Your task to perform on an android device: Set the phone to "Do not disturb". Image 0: 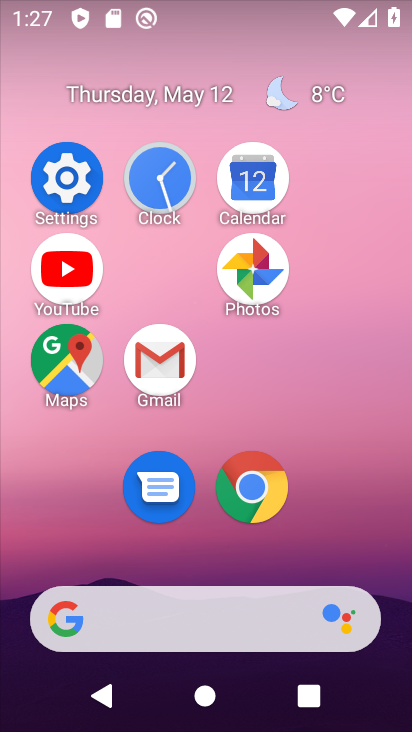
Step 0: click (69, 164)
Your task to perform on an android device: Set the phone to "Do not disturb". Image 1: 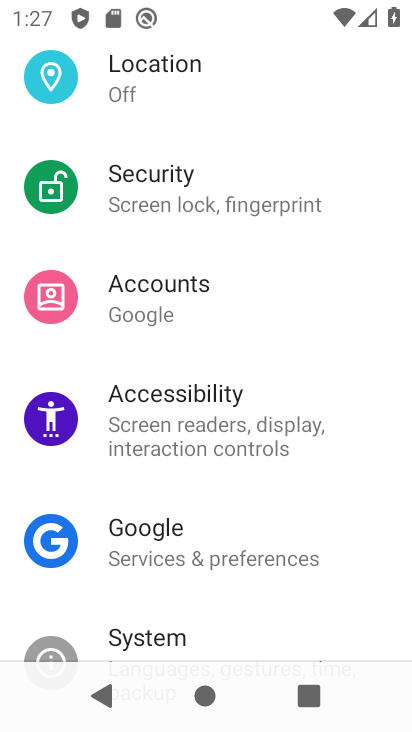
Step 1: drag from (238, 109) to (231, 549)
Your task to perform on an android device: Set the phone to "Do not disturb". Image 2: 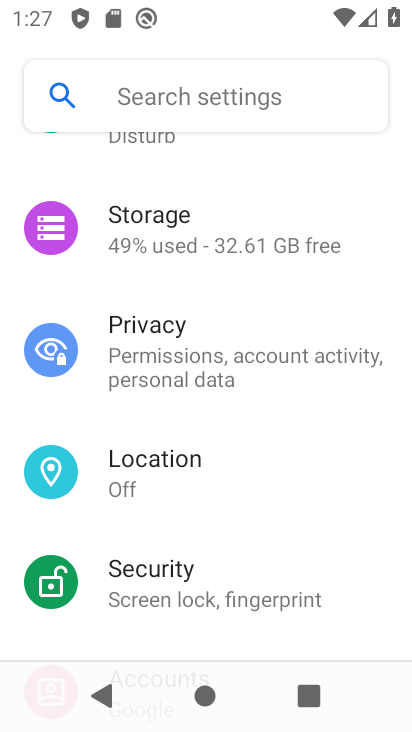
Step 2: drag from (280, 184) to (262, 432)
Your task to perform on an android device: Set the phone to "Do not disturb". Image 3: 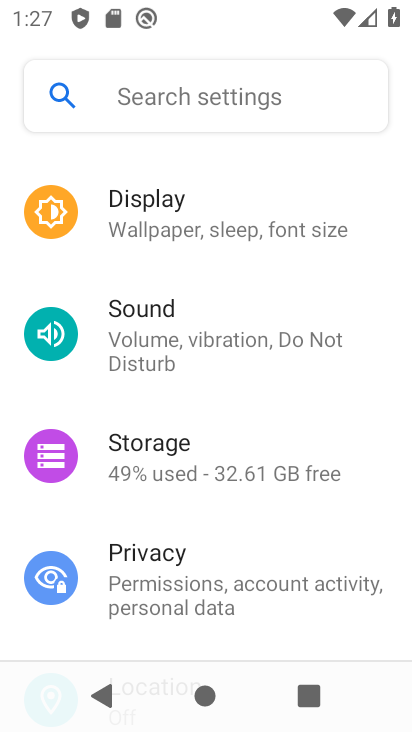
Step 3: click (225, 348)
Your task to perform on an android device: Set the phone to "Do not disturb". Image 4: 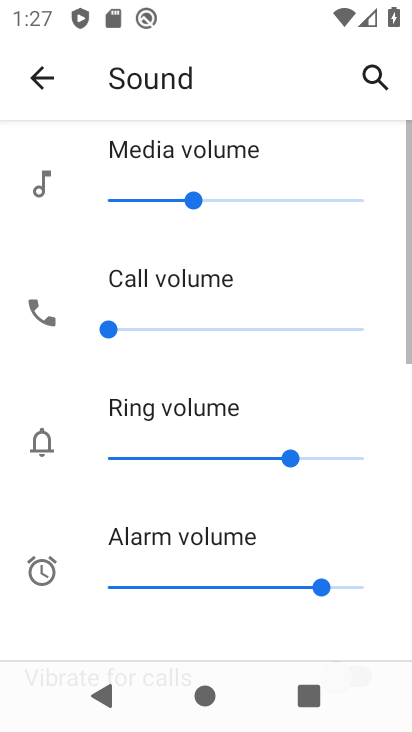
Step 4: drag from (221, 597) to (186, 165)
Your task to perform on an android device: Set the phone to "Do not disturb". Image 5: 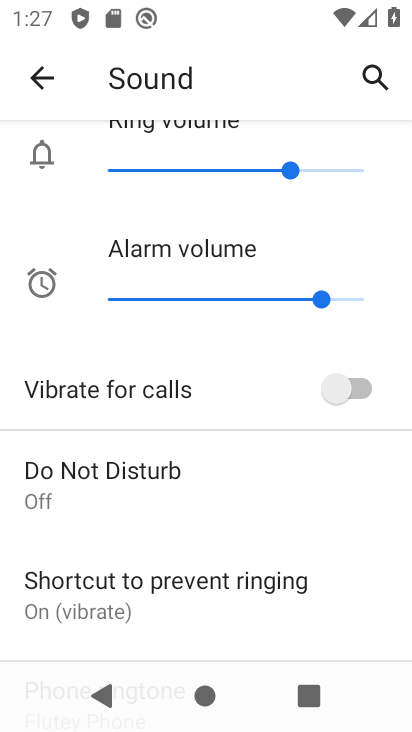
Step 5: click (186, 476)
Your task to perform on an android device: Set the phone to "Do not disturb". Image 6: 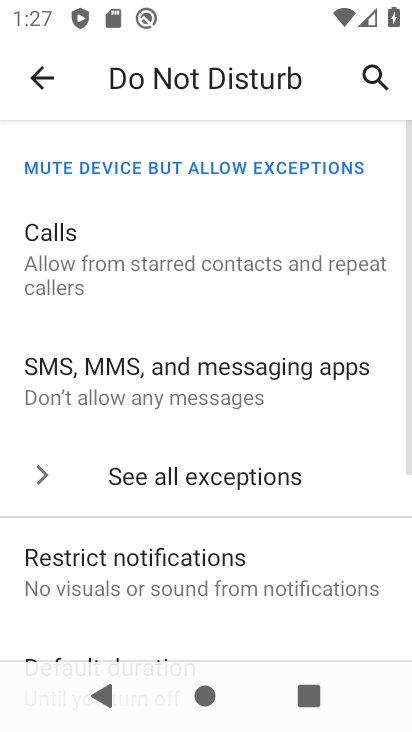
Step 6: drag from (196, 628) to (174, 157)
Your task to perform on an android device: Set the phone to "Do not disturb". Image 7: 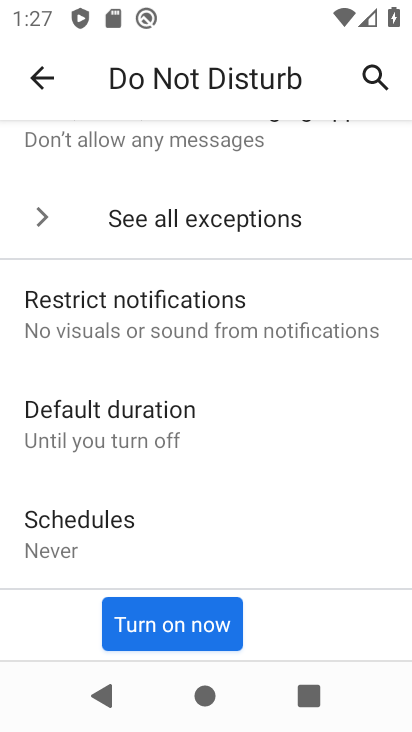
Step 7: click (179, 619)
Your task to perform on an android device: Set the phone to "Do not disturb". Image 8: 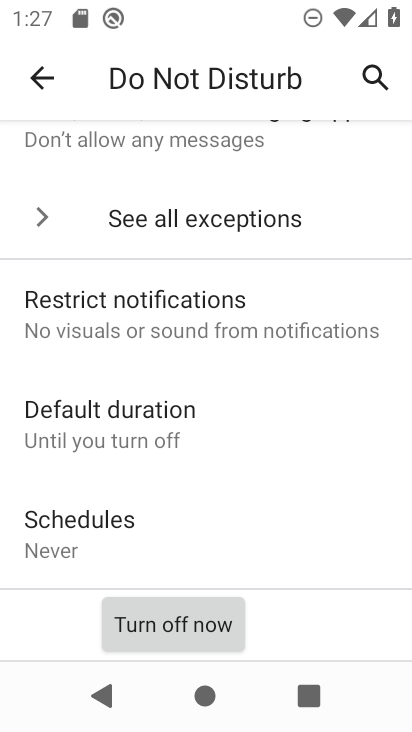
Step 8: task complete